Your task to perform on an android device: Do I have any events today? Image 0: 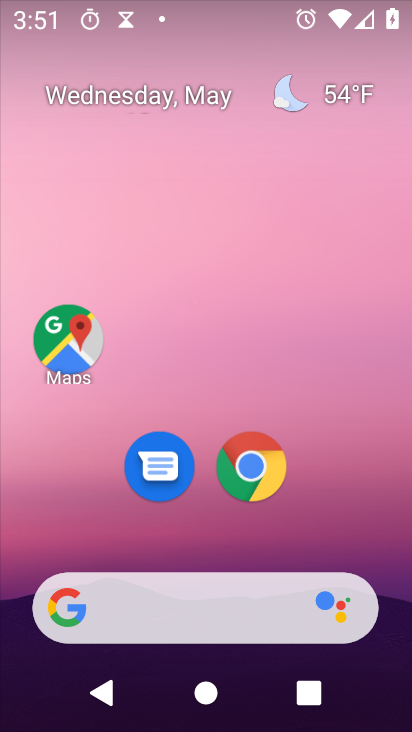
Step 0: drag from (381, 561) to (237, 122)
Your task to perform on an android device: Do I have any events today? Image 1: 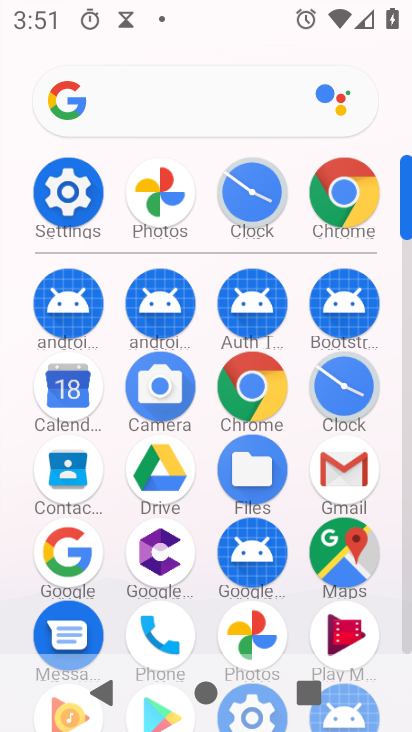
Step 1: click (76, 388)
Your task to perform on an android device: Do I have any events today? Image 2: 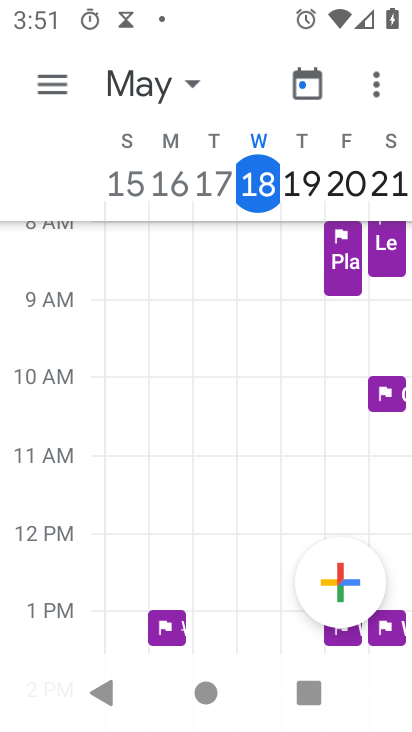
Step 2: click (41, 83)
Your task to perform on an android device: Do I have any events today? Image 3: 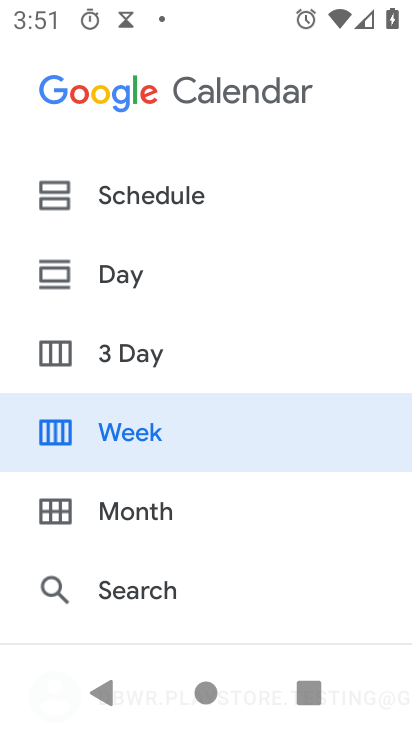
Step 3: click (112, 272)
Your task to perform on an android device: Do I have any events today? Image 4: 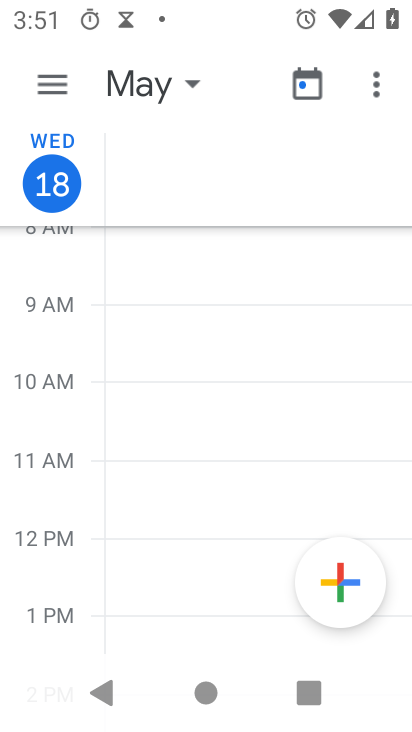
Step 4: task complete